Your task to perform on an android device: Open Yahoo.com Image 0: 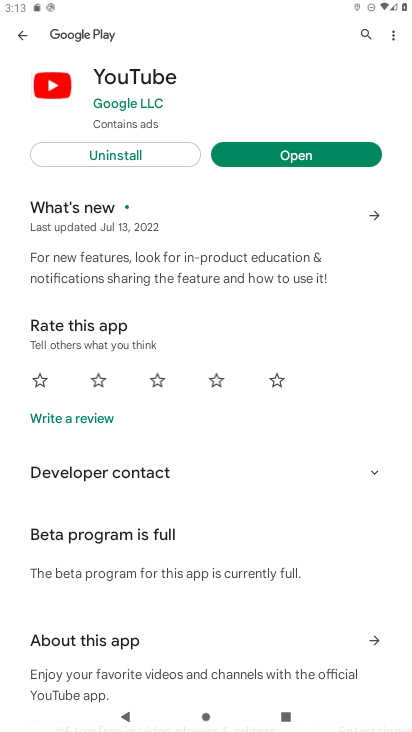
Step 0: press home button
Your task to perform on an android device: Open Yahoo.com Image 1: 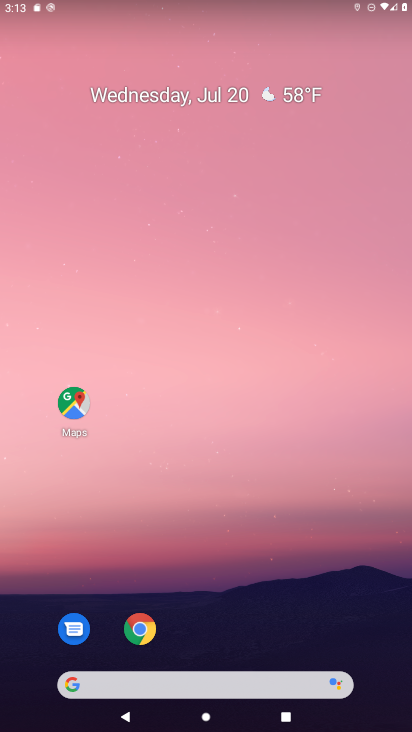
Step 1: drag from (217, 579) to (170, 9)
Your task to perform on an android device: Open Yahoo.com Image 2: 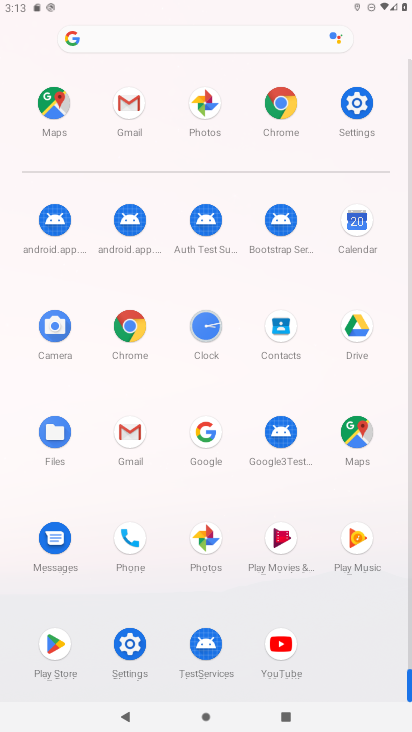
Step 2: click (132, 333)
Your task to perform on an android device: Open Yahoo.com Image 3: 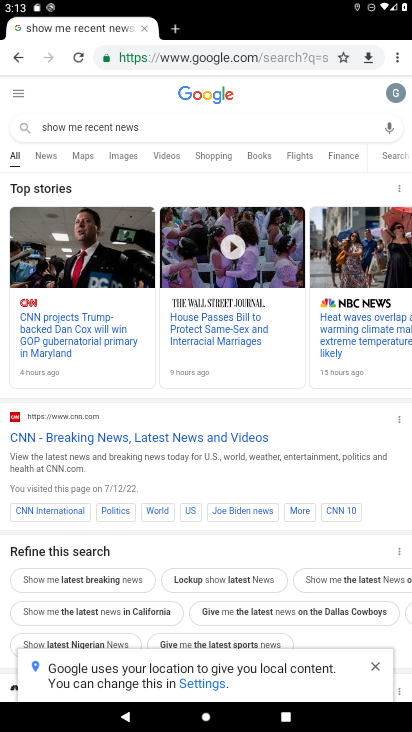
Step 3: click (179, 56)
Your task to perform on an android device: Open Yahoo.com Image 4: 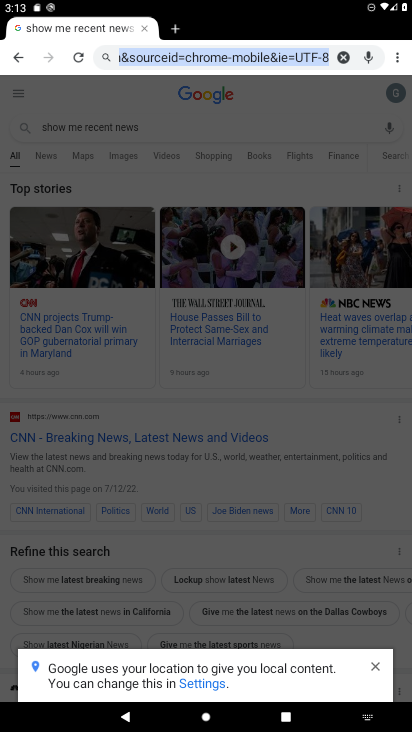
Step 4: click (339, 64)
Your task to perform on an android device: Open Yahoo.com Image 5: 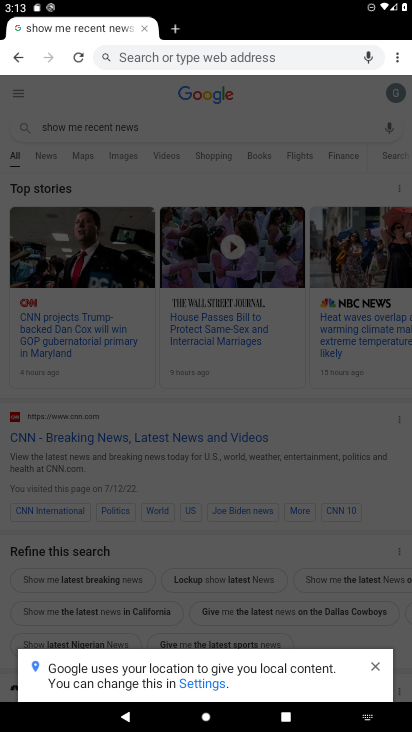
Step 5: type " Yahoo.com"
Your task to perform on an android device: Open Yahoo.com Image 6: 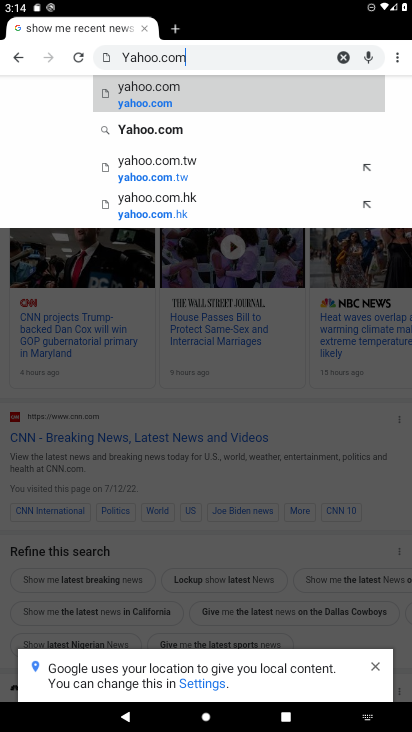
Step 6: click (126, 103)
Your task to perform on an android device: Open Yahoo.com Image 7: 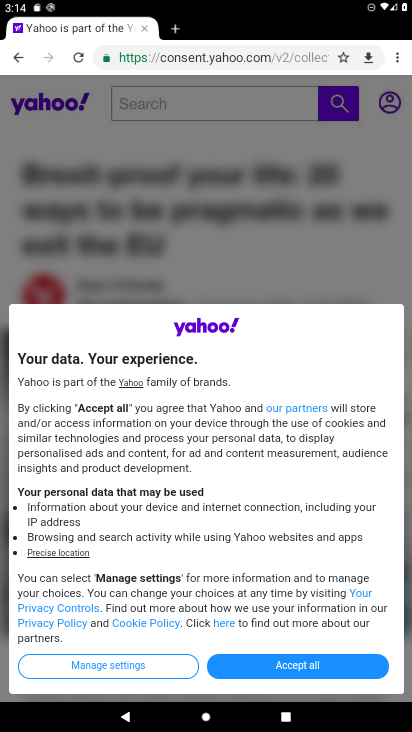
Step 7: click (310, 665)
Your task to perform on an android device: Open Yahoo.com Image 8: 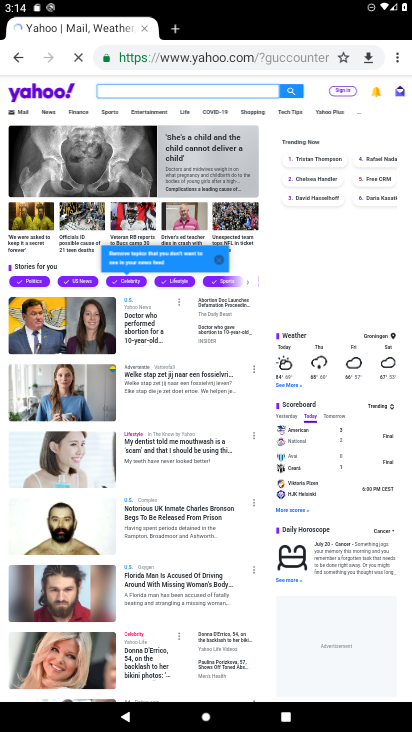
Step 8: task complete